Your task to perform on an android device: change keyboard looks Image 0: 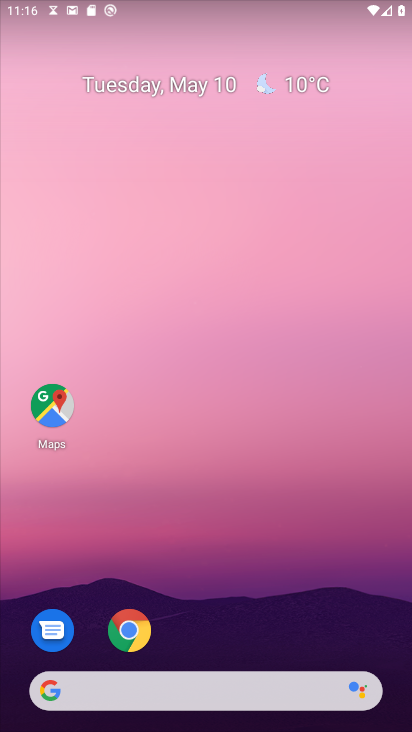
Step 0: drag from (281, 616) to (264, 180)
Your task to perform on an android device: change keyboard looks Image 1: 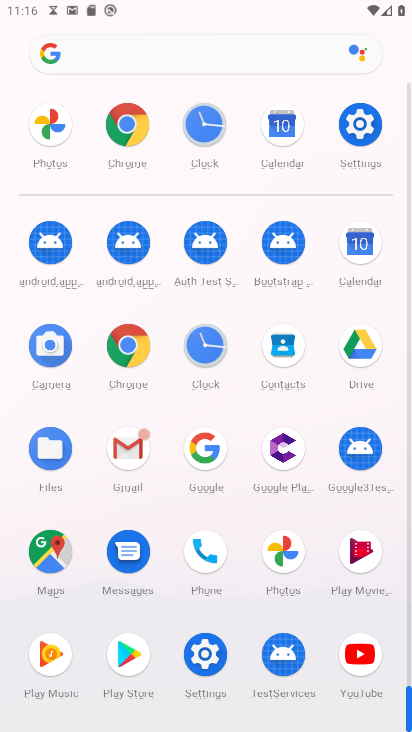
Step 1: click (366, 122)
Your task to perform on an android device: change keyboard looks Image 2: 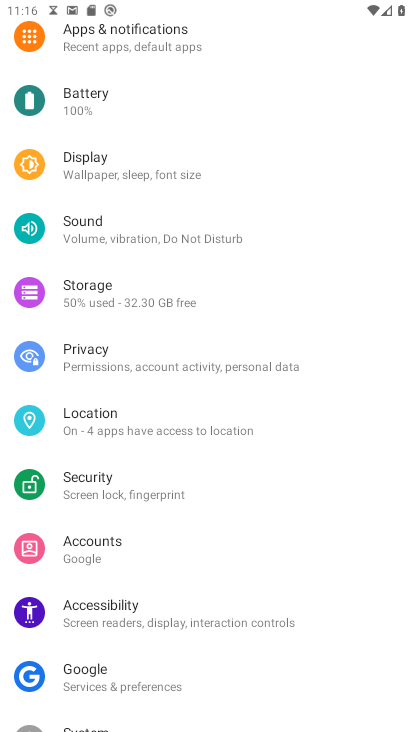
Step 2: drag from (300, 662) to (340, 457)
Your task to perform on an android device: change keyboard looks Image 3: 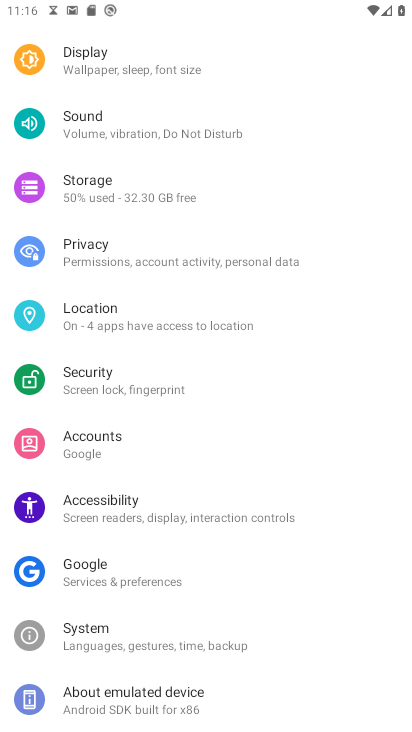
Step 3: click (191, 640)
Your task to perform on an android device: change keyboard looks Image 4: 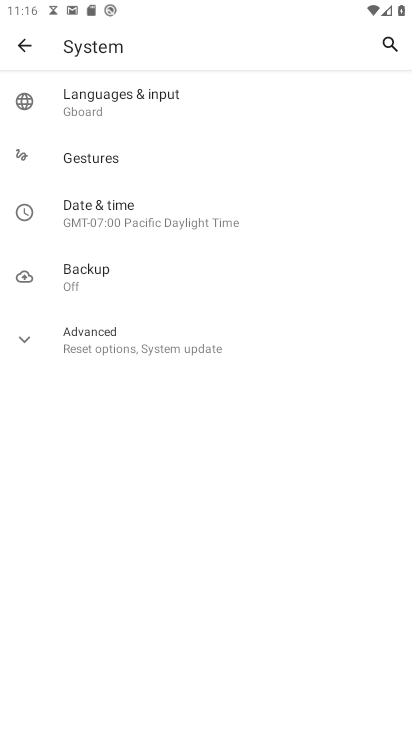
Step 4: click (172, 92)
Your task to perform on an android device: change keyboard looks Image 5: 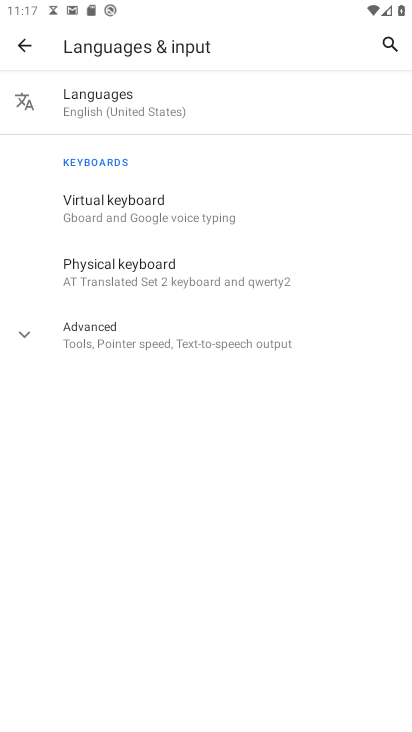
Step 5: click (21, 45)
Your task to perform on an android device: change keyboard looks Image 6: 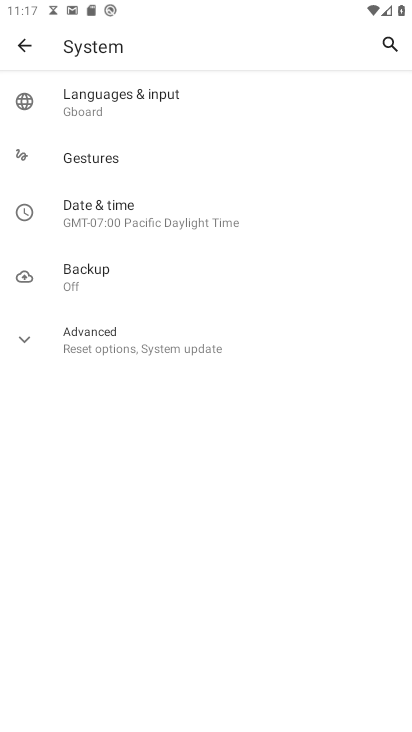
Step 6: click (169, 112)
Your task to perform on an android device: change keyboard looks Image 7: 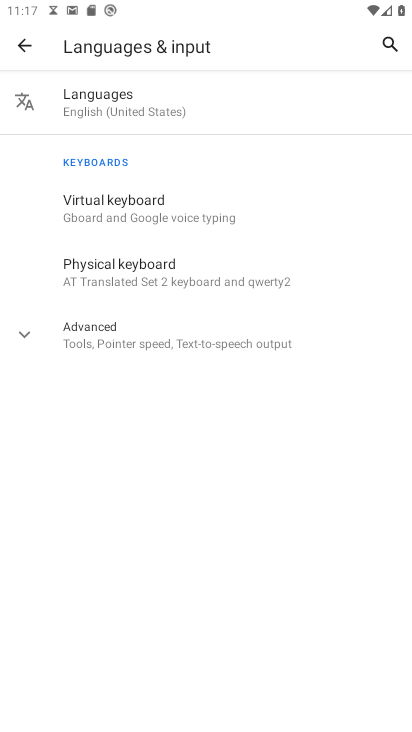
Step 7: click (160, 212)
Your task to perform on an android device: change keyboard looks Image 8: 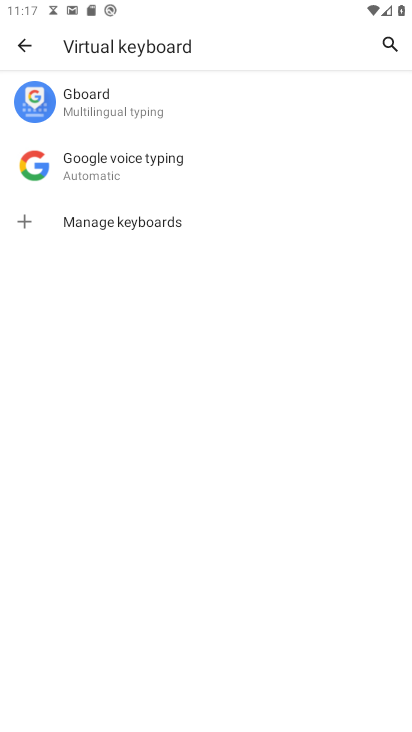
Step 8: click (129, 94)
Your task to perform on an android device: change keyboard looks Image 9: 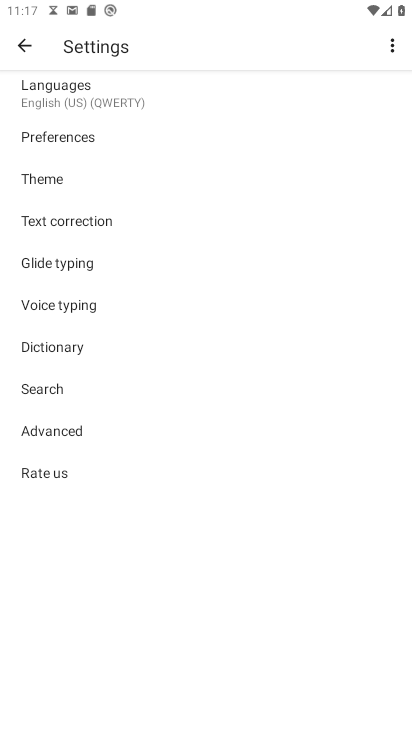
Step 9: click (59, 185)
Your task to perform on an android device: change keyboard looks Image 10: 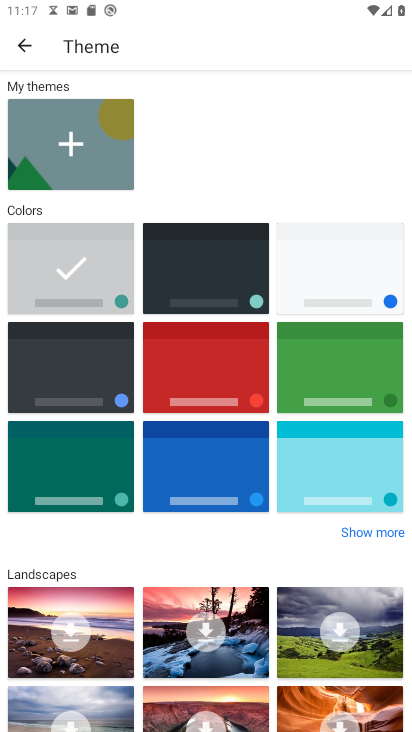
Step 10: click (200, 473)
Your task to perform on an android device: change keyboard looks Image 11: 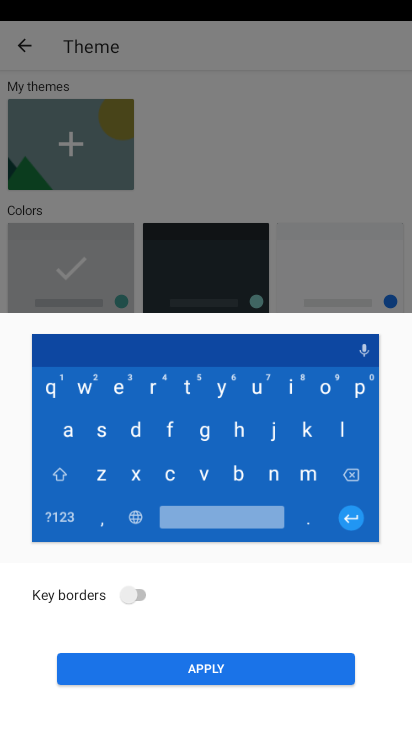
Step 11: click (145, 590)
Your task to perform on an android device: change keyboard looks Image 12: 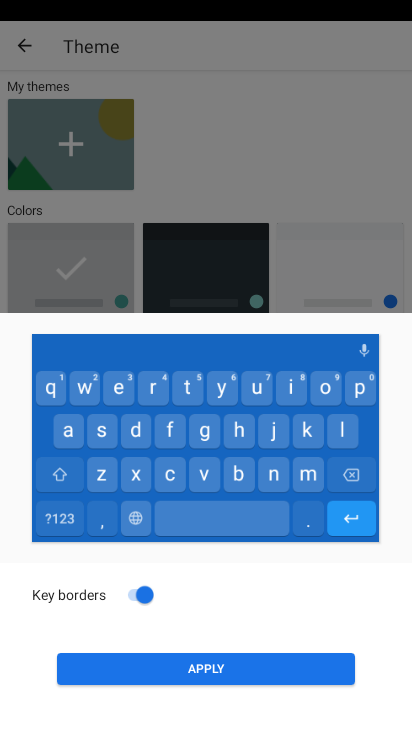
Step 12: click (240, 675)
Your task to perform on an android device: change keyboard looks Image 13: 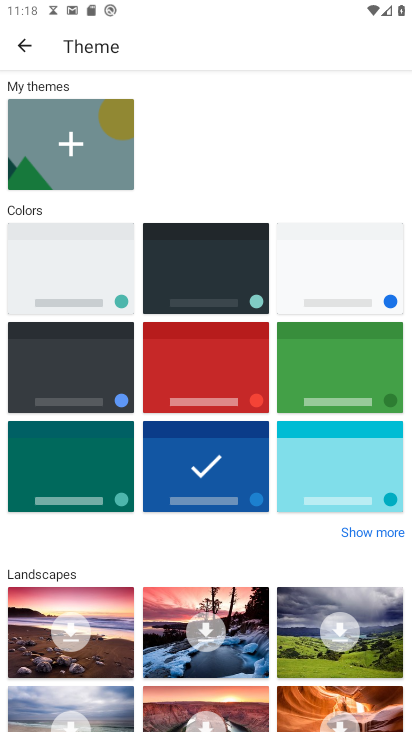
Step 13: task complete